Your task to perform on an android device: change notification settings in the gmail app Image 0: 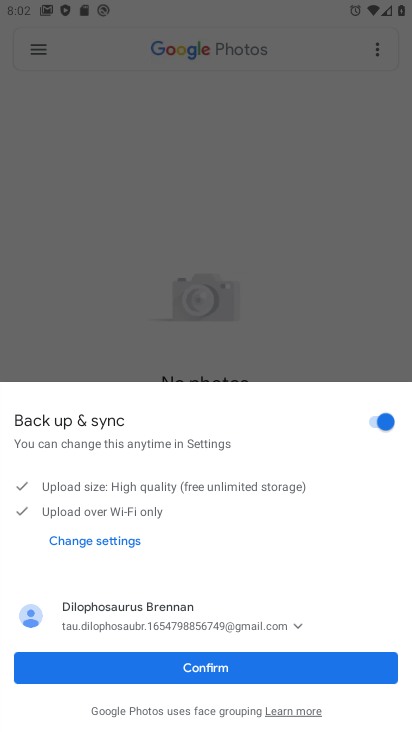
Step 0: press home button
Your task to perform on an android device: change notification settings in the gmail app Image 1: 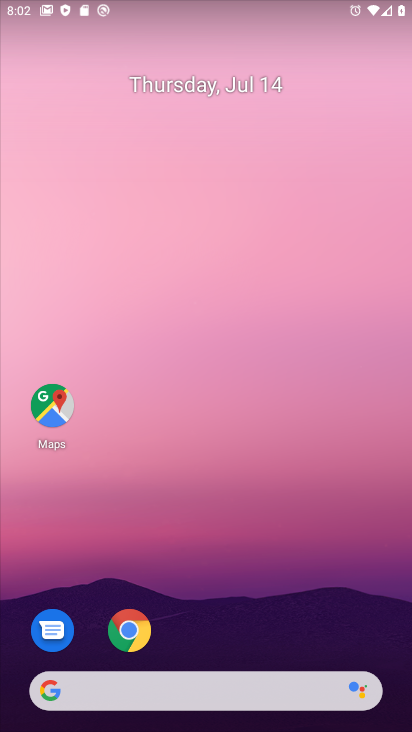
Step 1: drag from (244, 725) to (252, 486)
Your task to perform on an android device: change notification settings in the gmail app Image 2: 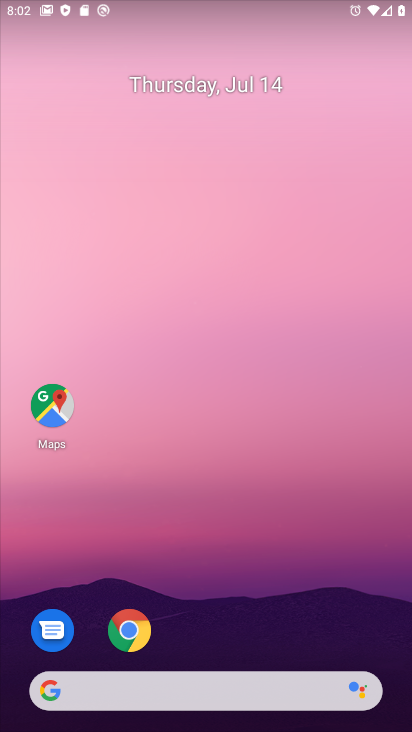
Step 2: drag from (258, 723) to (249, 289)
Your task to perform on an android device: change notification settings in the gmail app Image 3: 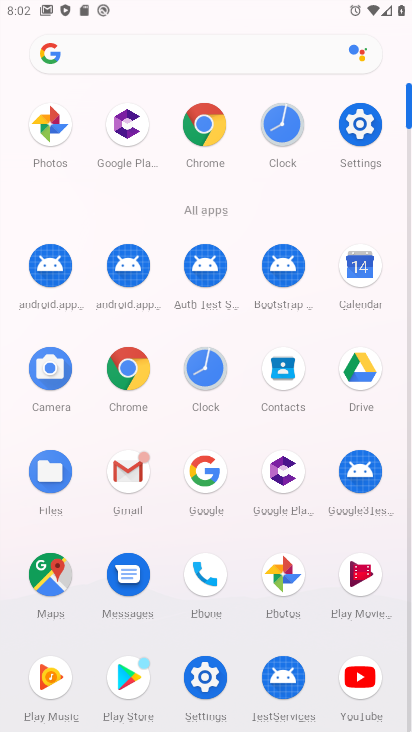
Step 3: click (143, 472)
Your task to perform on an android device: change notification settings in the gmail app Image 4: 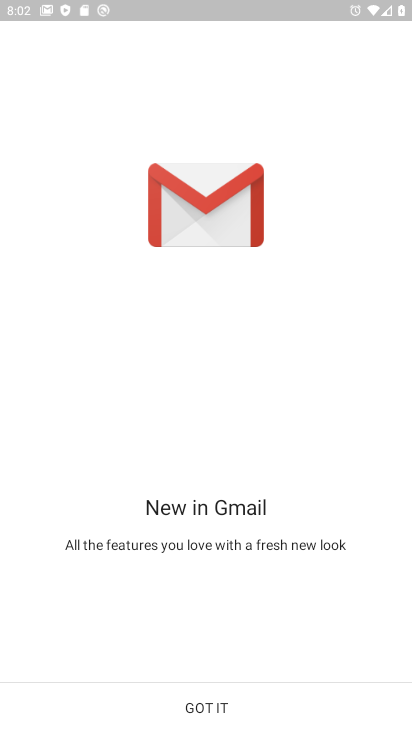
Step 4: click (235, 697)
Your task to perform on an android device: change notification settings in the gmail app Image 5: 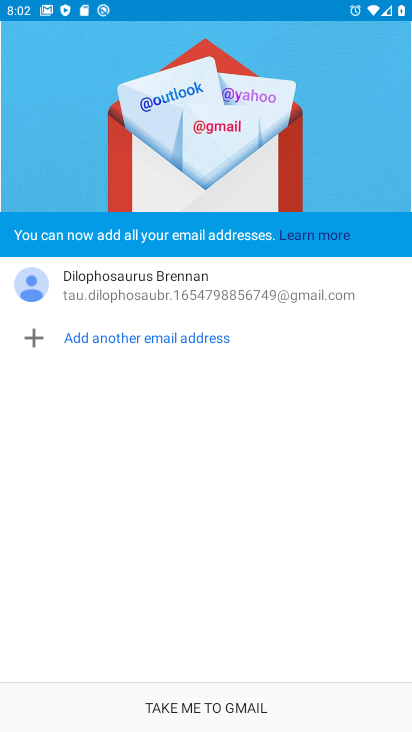
Step 5: click (206, 709)
Your task to perform on an android device: change notification settings in the gmail app Image 6: 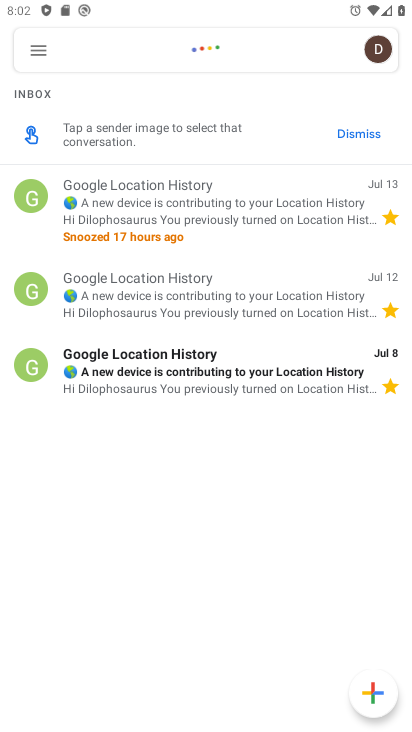
Step 6: click (37, 45)
Your task to perform on an android device: change notification settings in the gmail app Image 7: 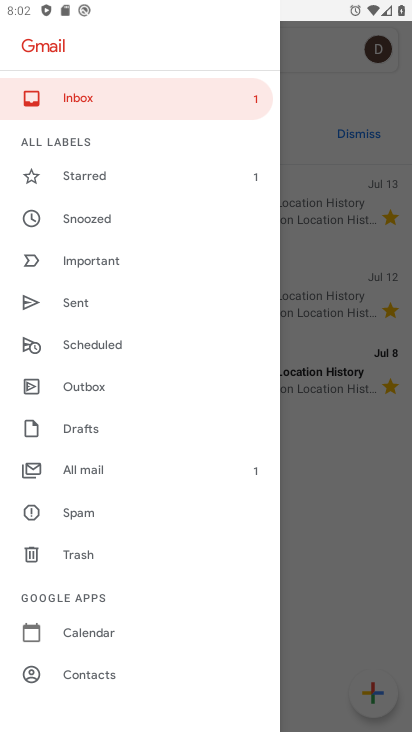
Step 7: drag from (109, 645) to (126, 321)
Your task to perform on an android device: change notification settings in the gmail app Image 8: 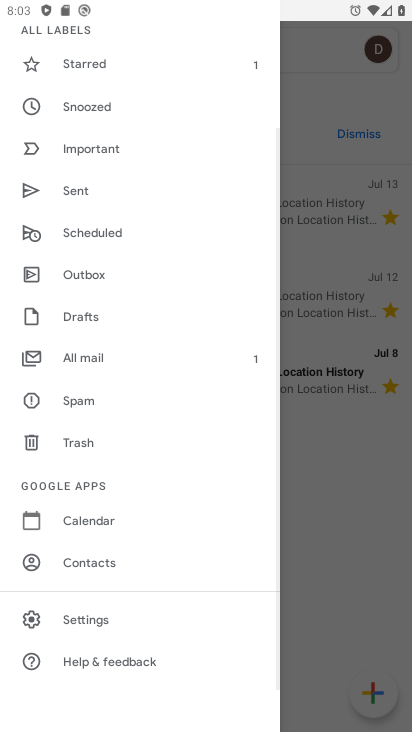
Step 8: click (85, 617)
Your task to perform on an android device: change notification settings in the gmail app Image 9: 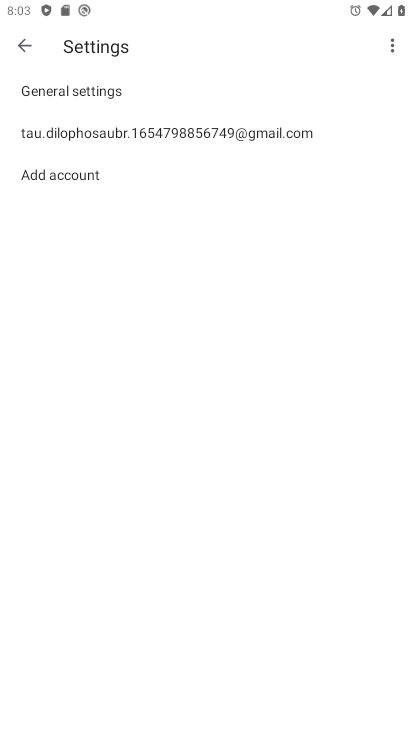
Step 9: click (101, 131)
Your task to perform on an android device: change notification settings in the gmail app Image 10: 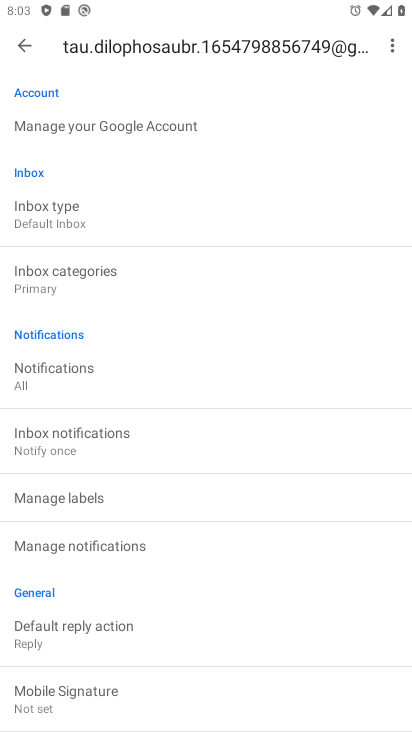
Step 10: click (51, 373)
Your task to perform on an android device: change notification settings in the gmail app Image 11: 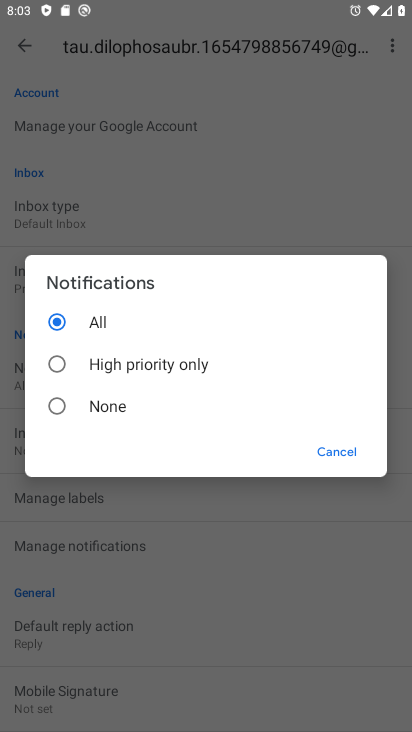
Step 11: click (58, 363)
Your task to perform on an android device: change notification settings in the gmail app Image 12: 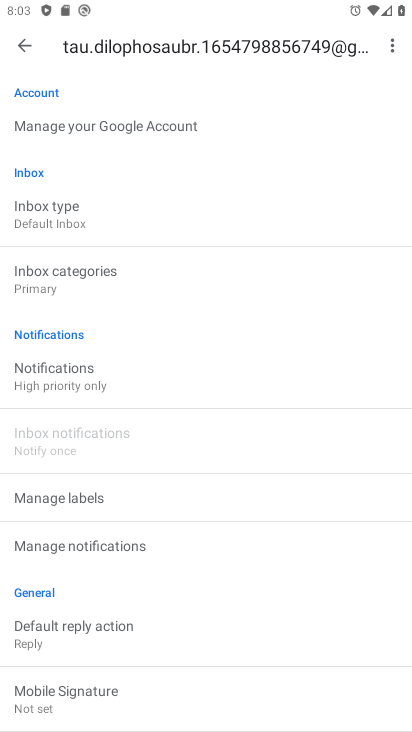
Step 12: task complete